Your task to perform on an android device: Go to sound settings Image 0: 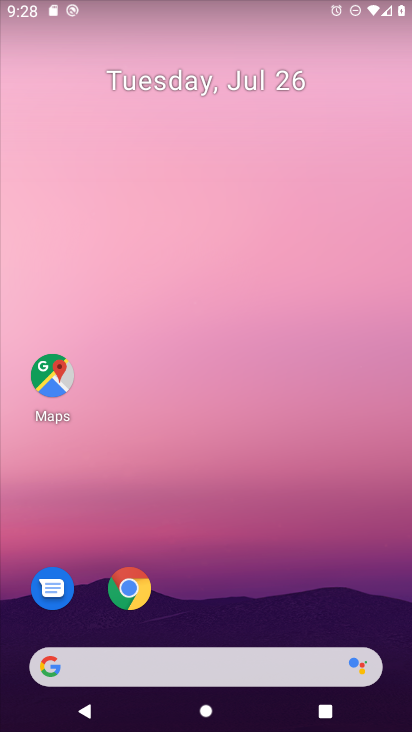
Step 0: drag from (238, 652) to (319, 97)
Your task to perform on an android device: Go to sound settings Image 1: 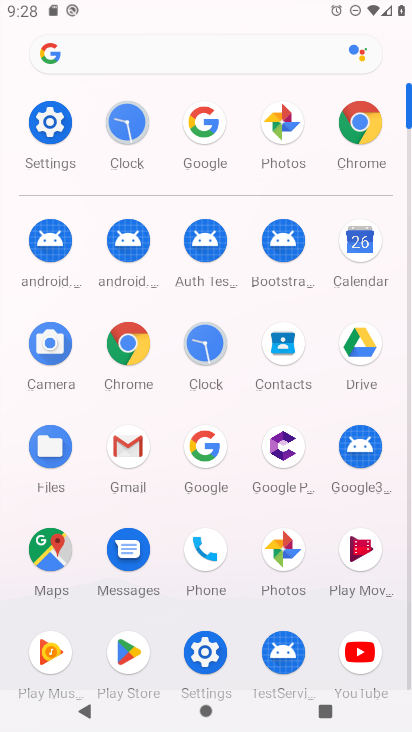
Step 1: click (52, 125)
Your task to perform on an android device: Go to sound settings Image 2: 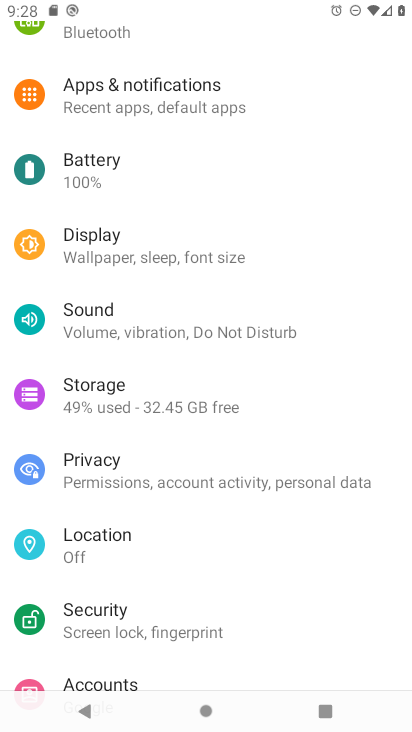
Step 2: click (65, 314)
Your task to perform on an android device: Go to sound settings Image 3: 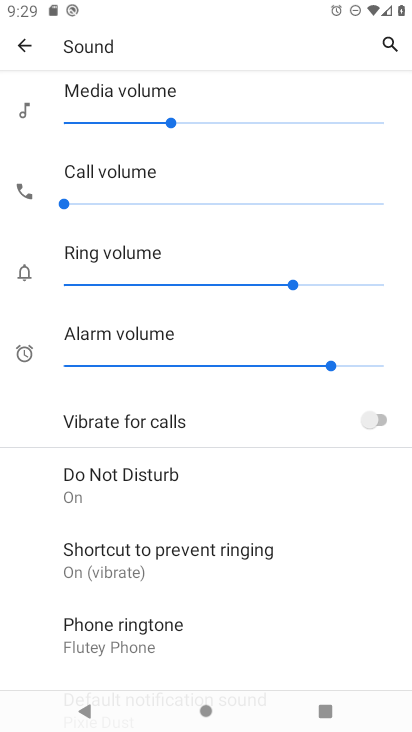
Step 3: task complete